Your task to perform on an android device: show emergency info Image 0: 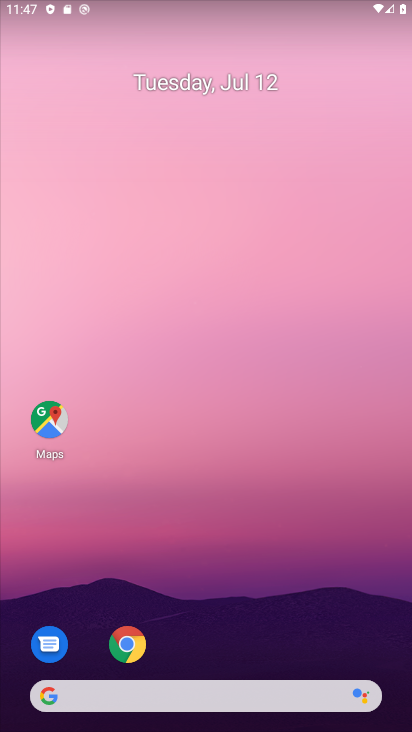
Step 0: drag from (200, 633) to (256, 82)
Your task to perform on an android device: show emergency info Image 1: 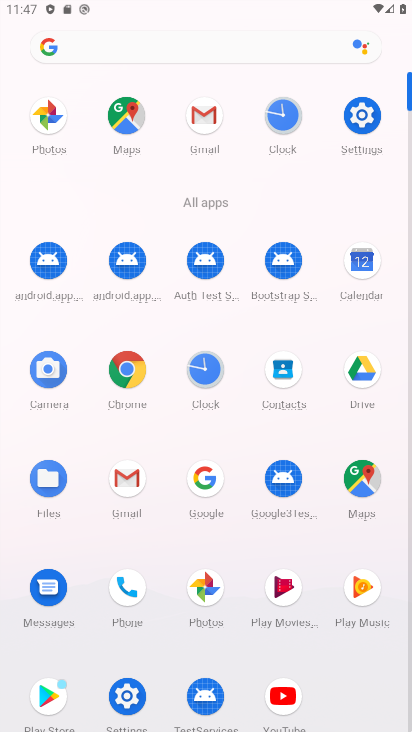
Step 1: click (360, 121)
Your task to perform on an android device: show emergency info Image 2: 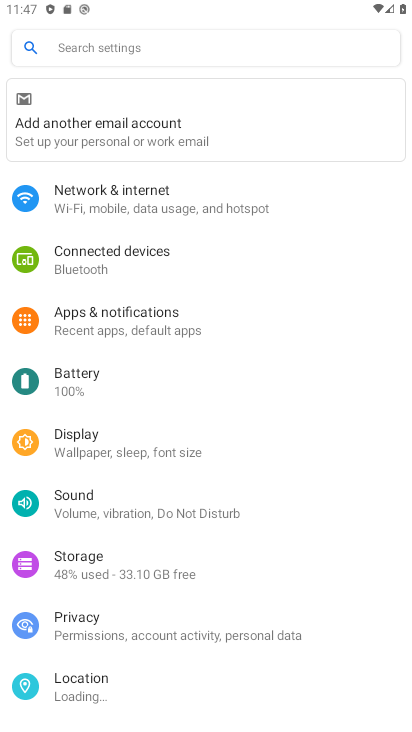
Step 2: drag from (174, 613) to (195, 87)
Your task to perform on an android device: show emergency info Image 3: 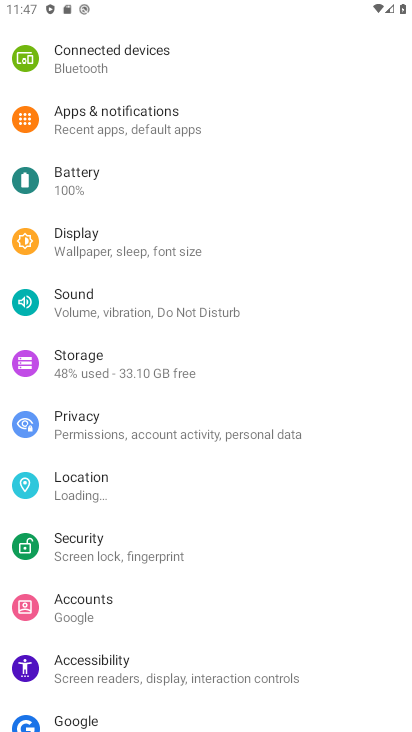
Step 3: drag from (149, 670) to (160, 119)
Your task to perform on an android device: show emergency info Image 4: 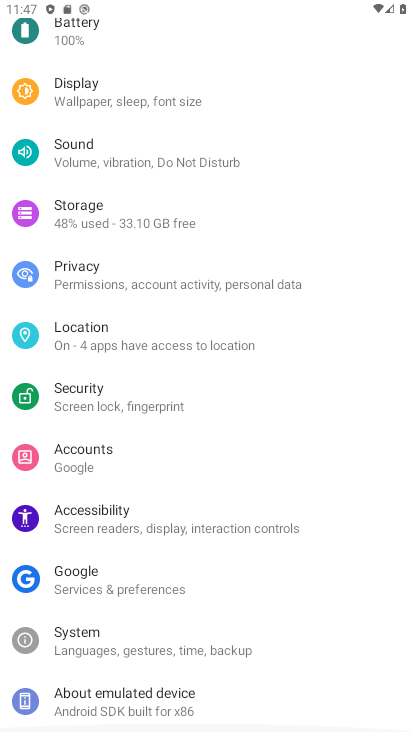
Step 4: drag from (162, 176) to (246, 30)
Your task to perform on an android device: show emergency info Image 5: 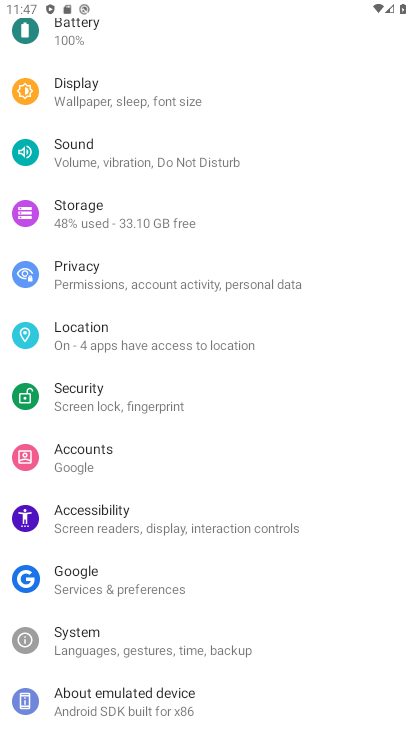
Step 5: click (137, 704)
Your task to perform on an android device: show emergency info Image 6: 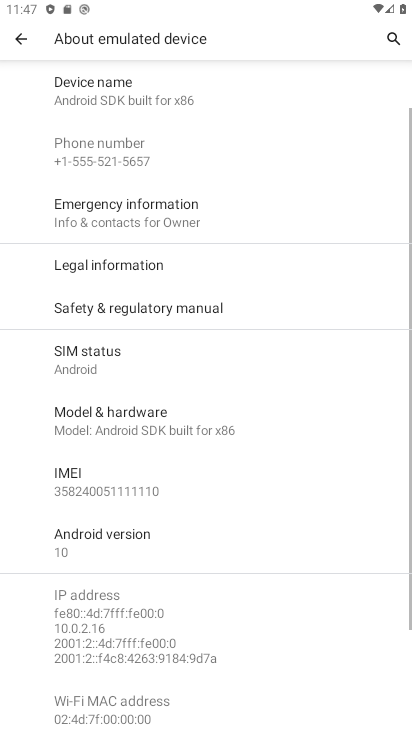
Step 6: click (142, 211)
Your task to perform on an android device: show emergency info Image 7: 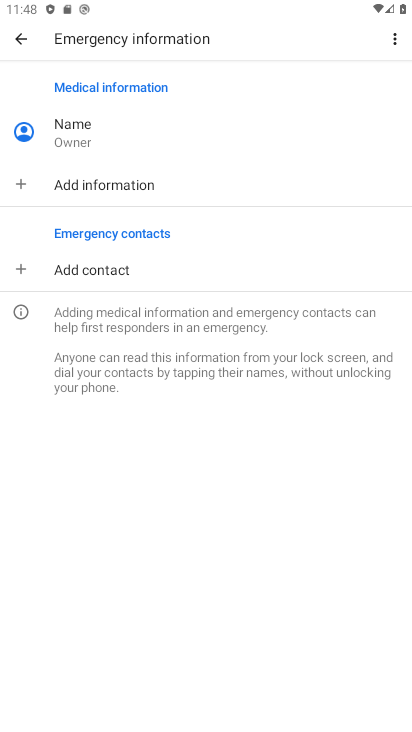
Step 7: task complete